Your task to perform on an android device: open a bookmark in the chrome app Image 0: 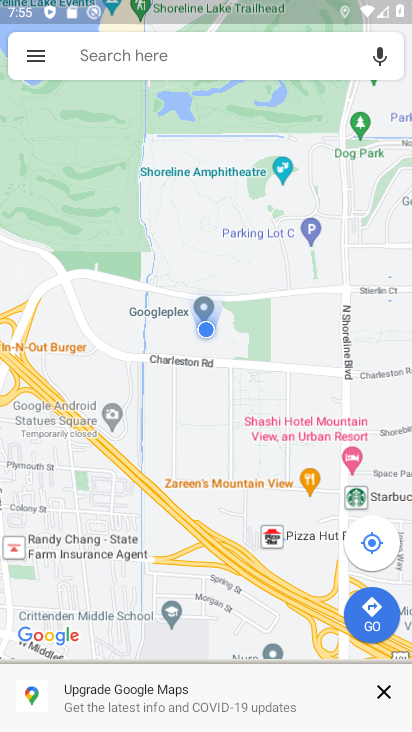
Step 0: press home button
Your task to perform on an android device: open a bookmark in the chrome app Image 1: 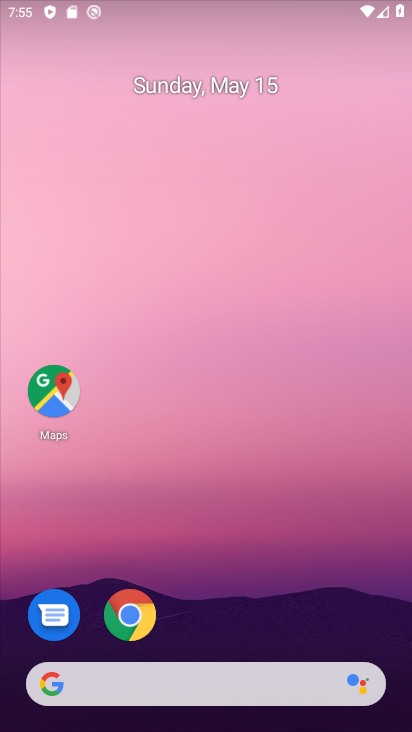
Step 1: drag from (254, 550) to (161, 303)
Your task to perform on an android device: open a bookmark in the chrome app Image 2: 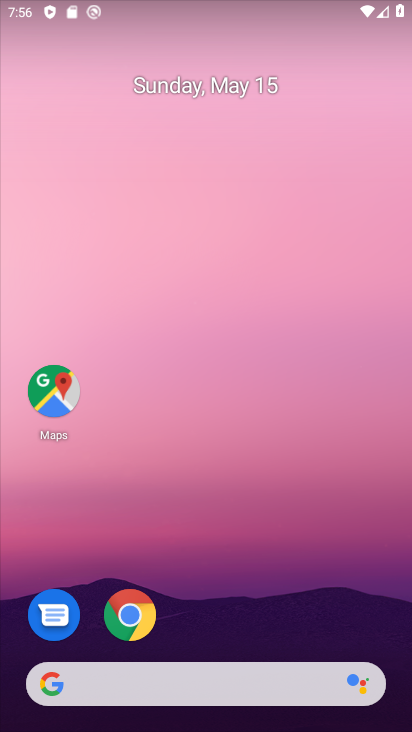
Step 2: drag from (311, 720) to (171, 273)
Your task to perform on an android device: open a bookmark in the chrome app Image 3: 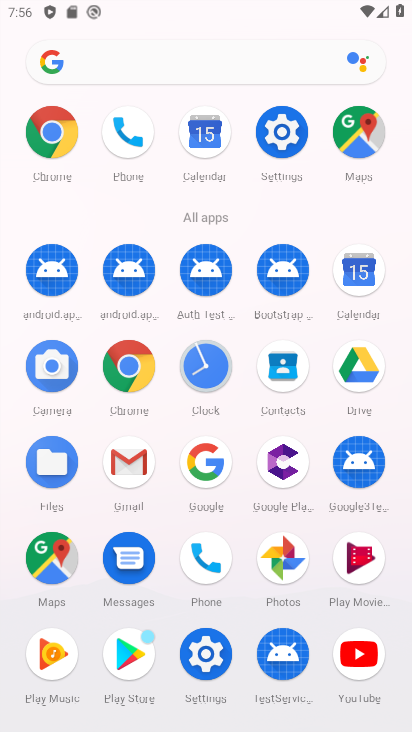
Step 3: click (35, 140)
Your task to perform on an android device: open a bookmark in the chrome app Image 4: 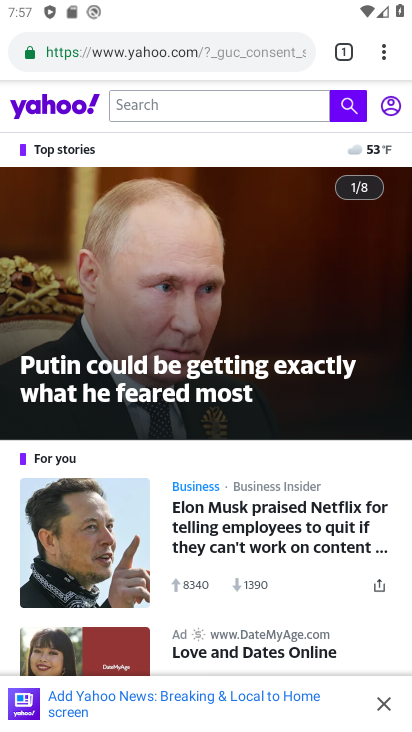
Step 4: click (367, 55)
Your task to perform on an android device: open a bookmark in the chrome app Image 5: 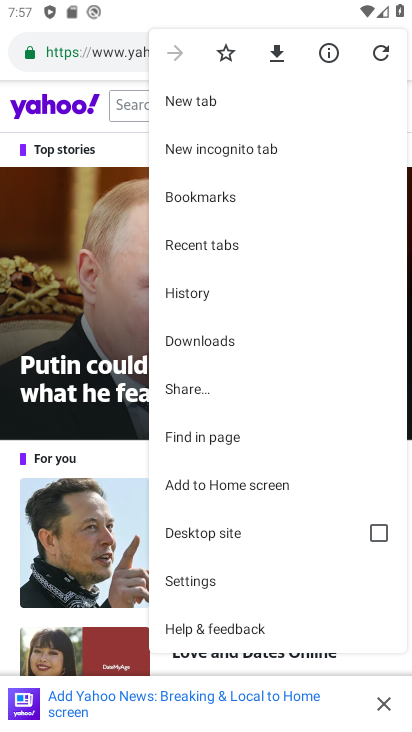
Step 5: click (239, 198)
Your task to perform on an android device: open a bookmark in the chrome app Image 6: 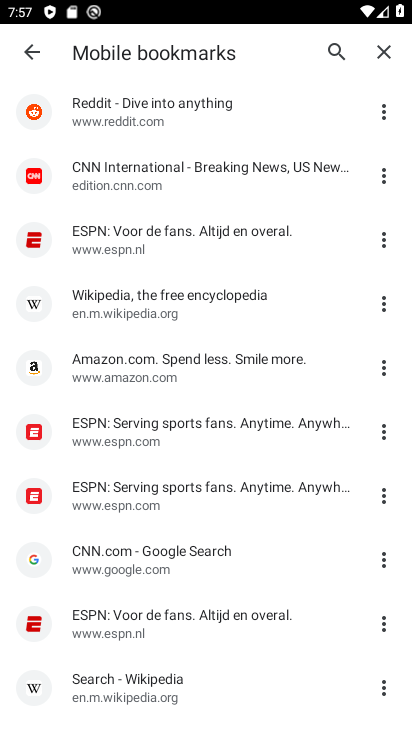
Step 6: click (132, 386)
Your task to perform on an android device: open a bookmark in the chrome app Image 7: 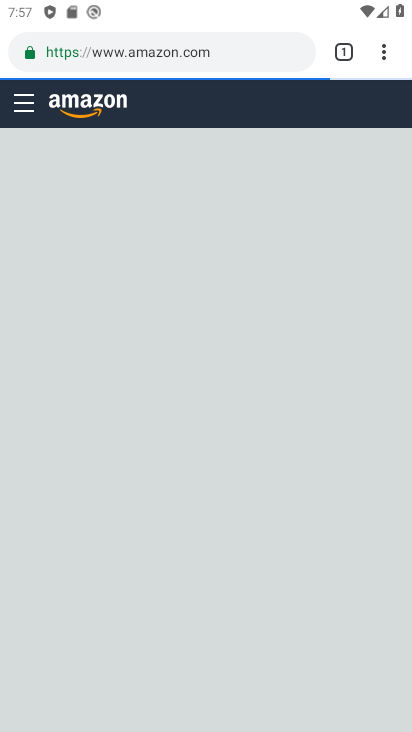
Step 7: task complete